Your task to perform on an android device: turn on data saver in the chrome app Image 0: 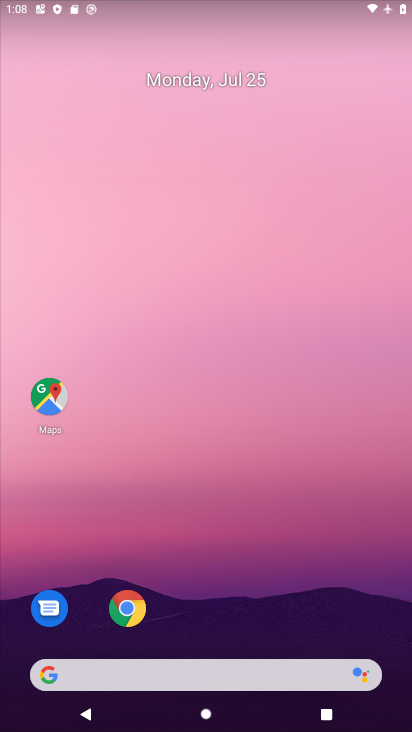
Step 0: press home button
Your task to perform on an android device: turn on data saver in the chrome app Image 1: 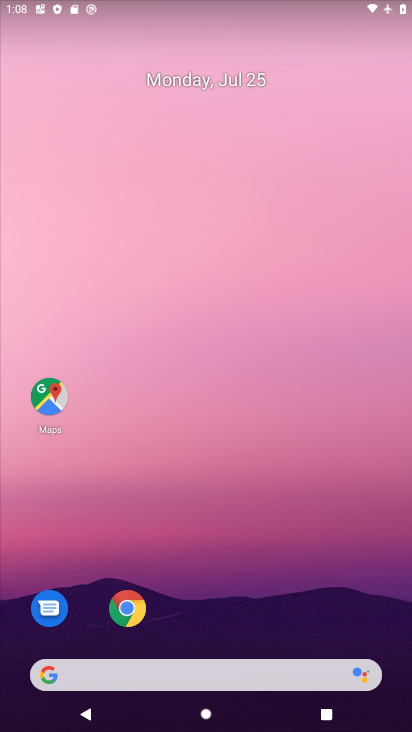
Step 1: drag from (163, 666) to (318, 152)
Your task to perform on an android device: turn on data saver in the chrome app Image 2: 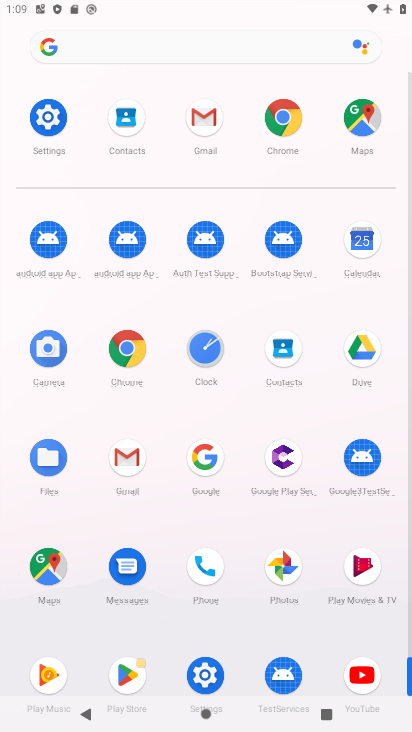
Step 2: click (136, 363)
Your task to perform on an android device: turn on data saver in the chrome app Image 3: 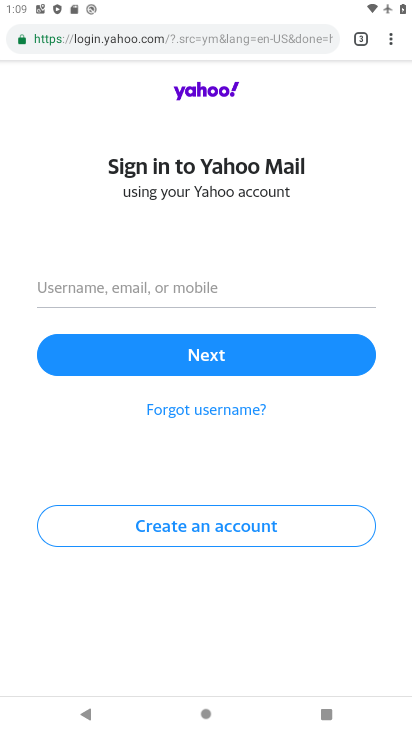
Step 3: click (395, 45)
Your task to perform on an android device: turn on data saver in the chrome app Image 4: 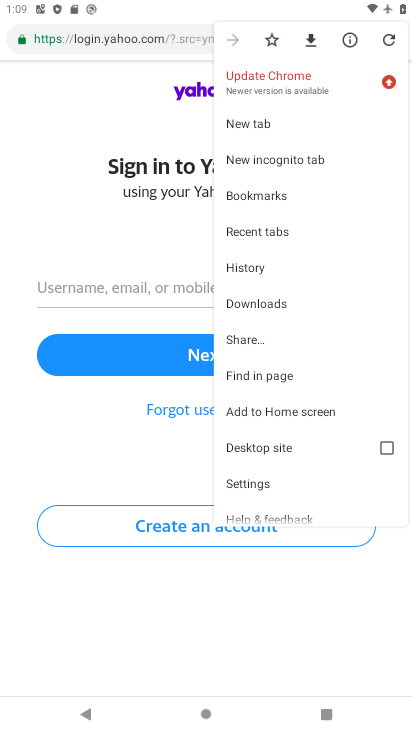
Step 4: click (248, 478)
Your task to perform on an android device: turn on data saver in the chrome app Image 5: 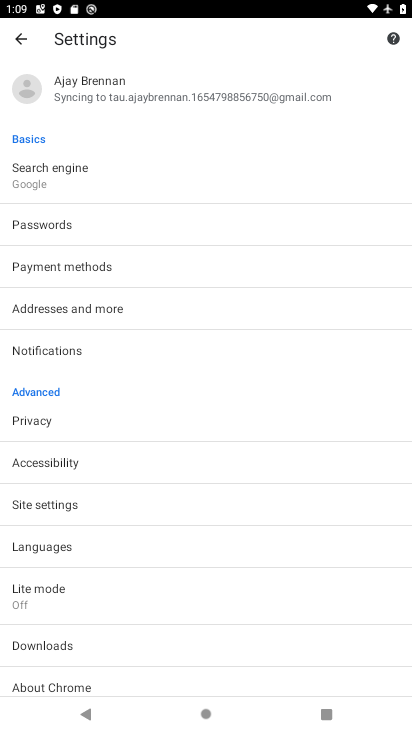
Step 5: drag from (149, 504) to (242, 187)
Your task to perform on an android device: turn on data saver in the chrome app Image 6: 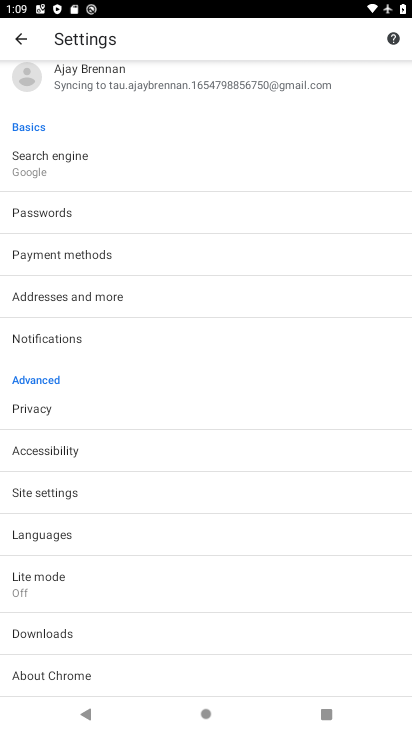
Step 6: click (78, 585)
Your task to perform on an android device: turn on data saver in the chrome app Image 7: 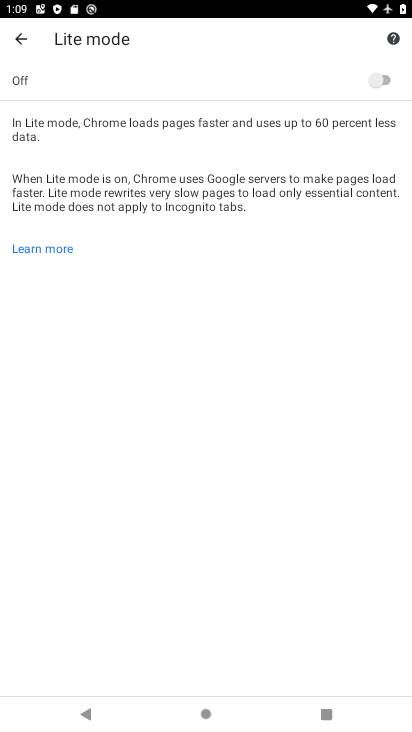
Step 7: click (390, 81)
Your task to perform on an android device: turn on data saver in the chrome app Image 8: 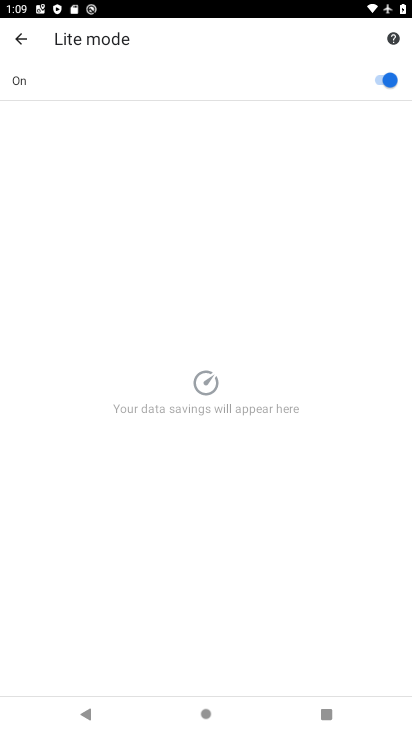
Step 8: task complete